Your task to perform on an android device: turn off notifications settings in the gmail app Image 0: 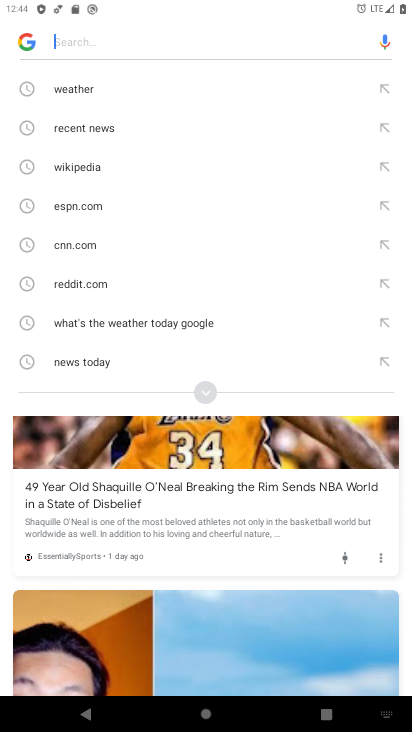
Step 0: press home button
Your task to perform on an android device: turn off notifications settings in the gmail app Image 1: 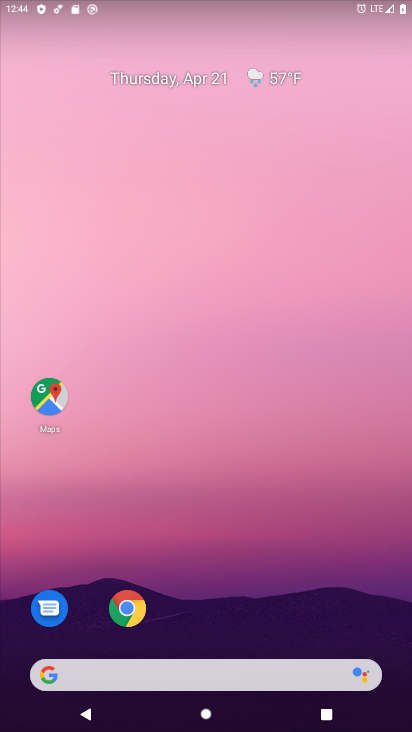
Step 1: drag from (237, 612) to (231, 165)
Your task to perform on an android device: turn off notifications settings in the gmail app Image 2: 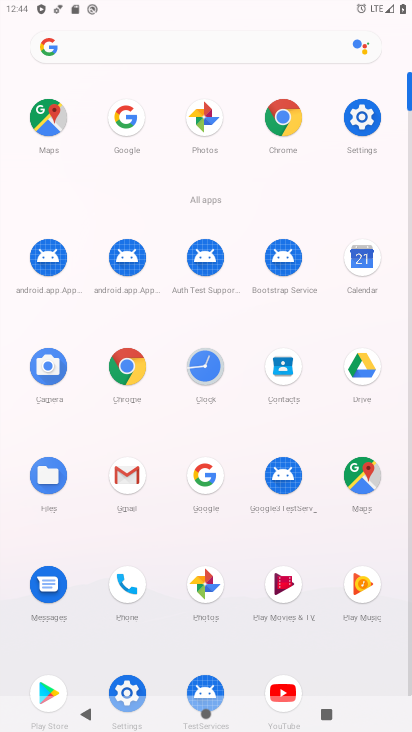
Step 2: click (127, 467)
Your task to perform on an android device: turn off notifications settings in the gmail app Image 3: 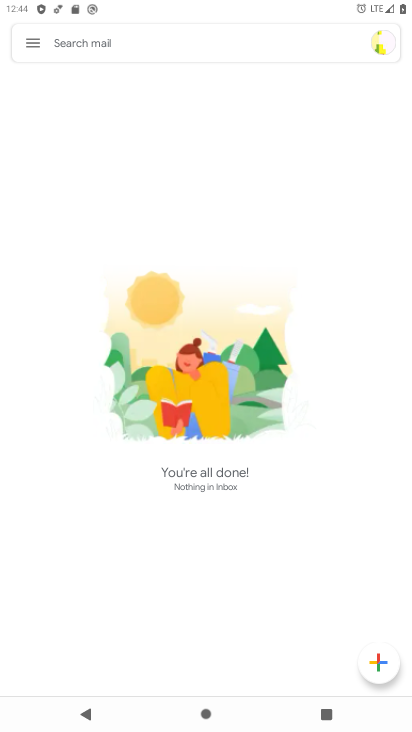
Step 3: click (33, 38)
Your task to perform on an android device: turn off notifications settings in the gmail app Image 4: 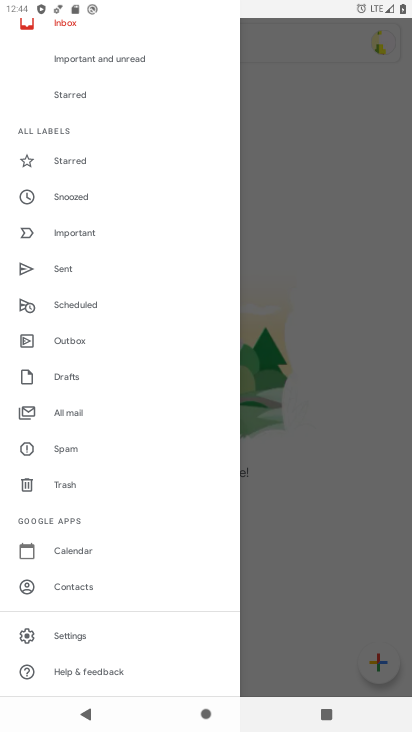
Step 4: click (78, 629)
Your task to perform on an android device: turn off notifications settings in the gmail app Image 5: 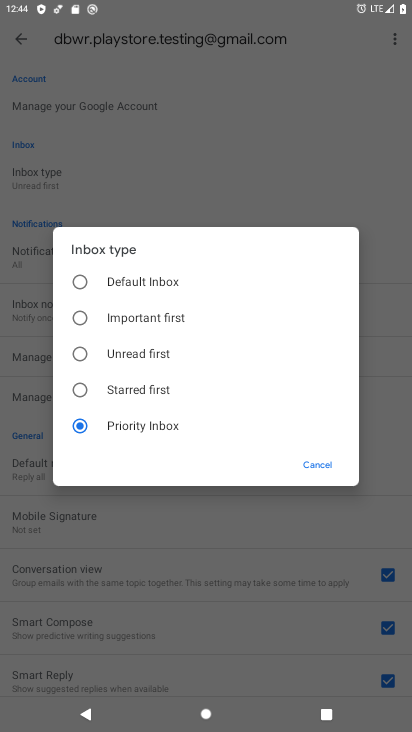
Step 5: click (325, 456)
Your task to perform on an android device: turn off notifications settings in the gmail app Image 6: 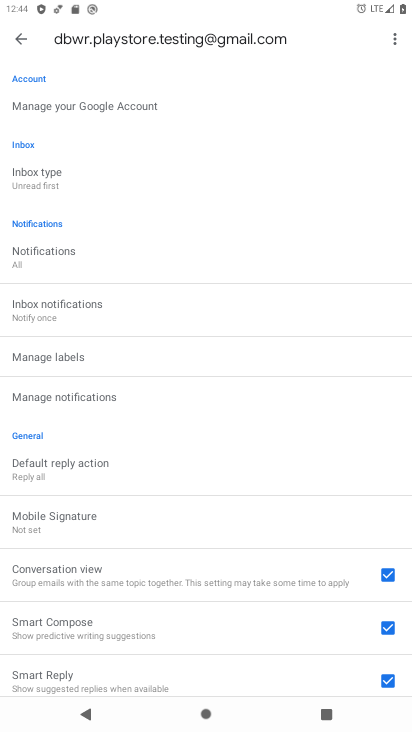
Step 6: click (92, 398)
Your task to perform on an android device: turn off notifications settings in the gmail app Image 7: 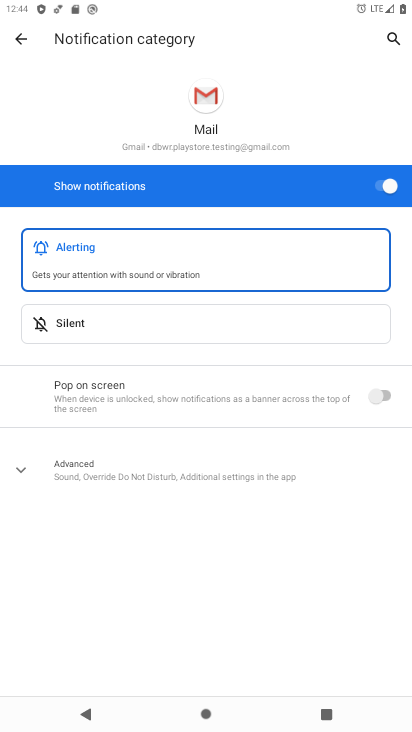
Step 7: click (378, 186)
Your task to perform on an android device: turn off notifications settings in the gmail app Image 8: 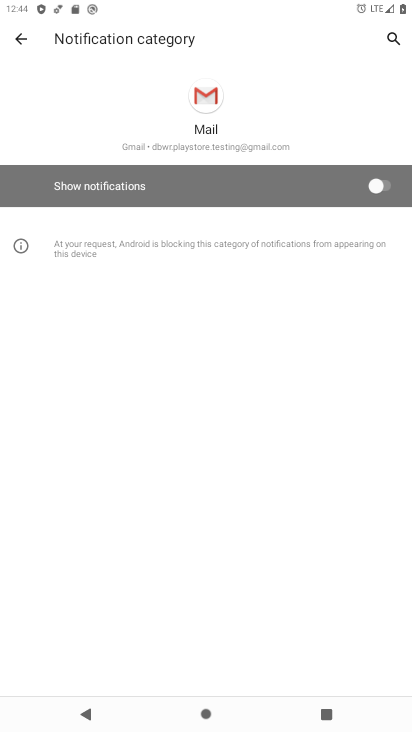
Step 8: task complete